Your task to perform on an android device: What is the news today? Image 0: 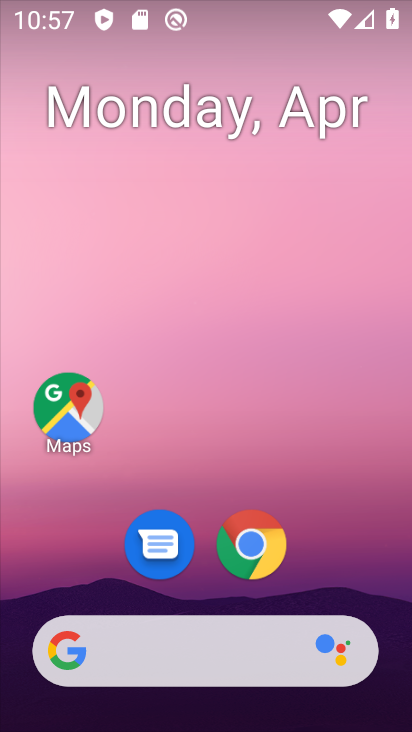
Step 0: drag from (250, 291) to (394, 252)
Your task to perform on an android device: What is the news today? Image 1: 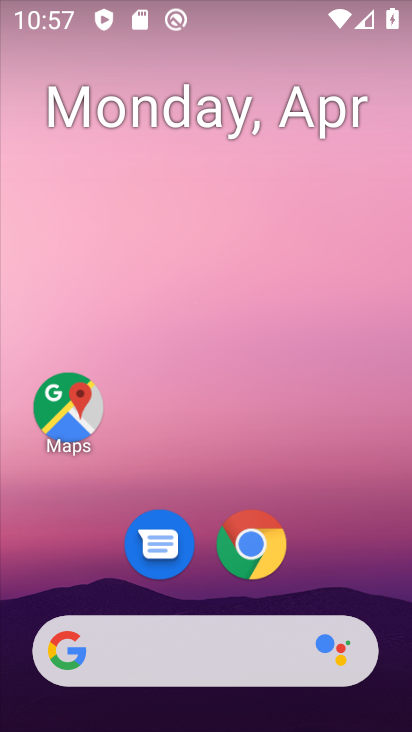
Step 1: task complete